Your task to perform on an android device: turn on bluetooth scan Image 0: 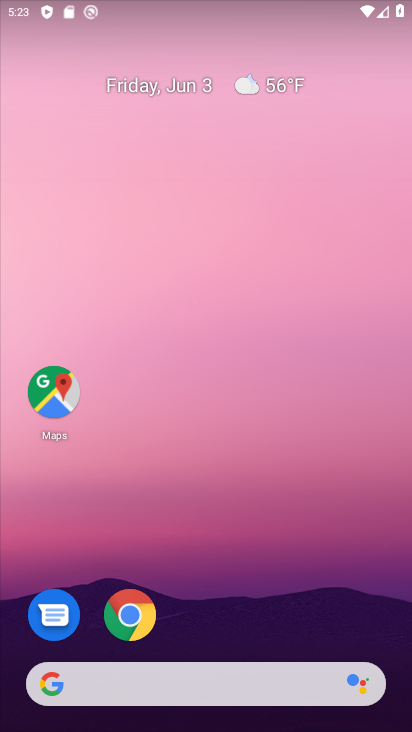
Step 0: drag from (238, 574) to (151, 20)
Your task to perform on an android device: turn on bluetooth scan Image 1: 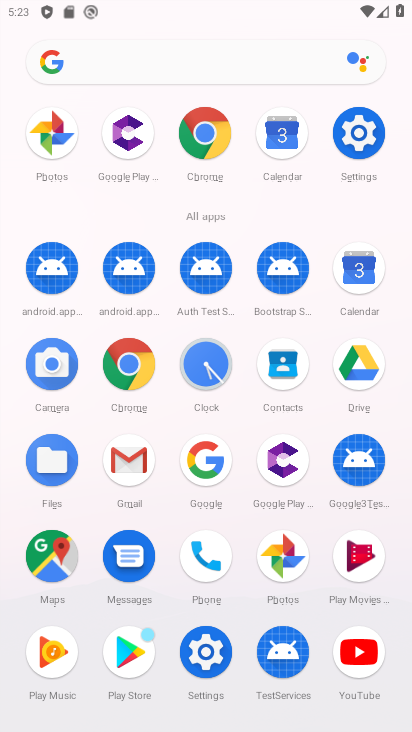
Step 1: click (357, 133)
Your task to perform on an android device: turn on bluetooth scan Image 2: 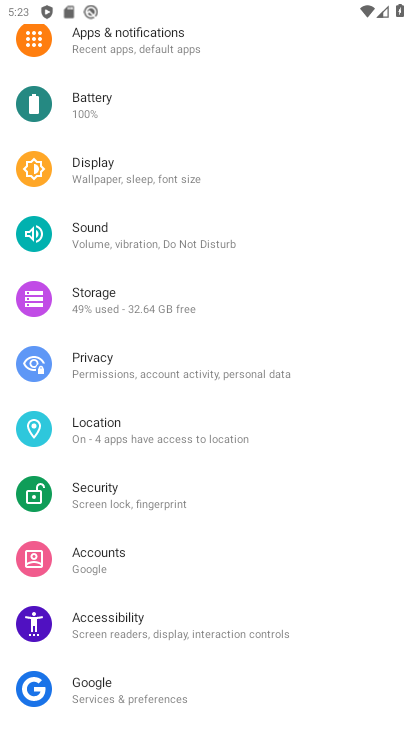
Step 2: click (154, 432)
Your task to perform on an android device: turn on bluetooth scan Image 3: 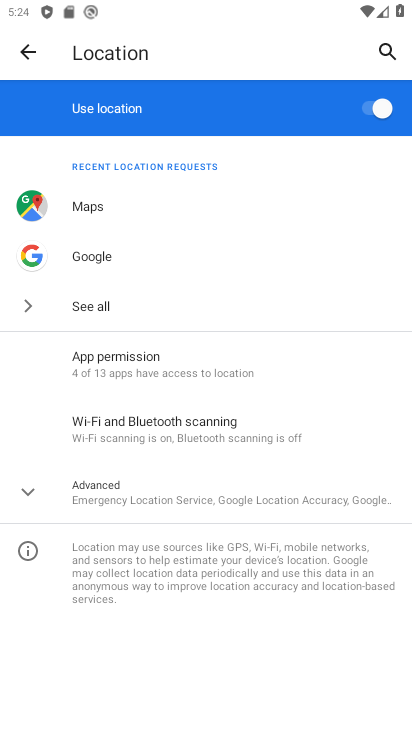
Step 3: click (137, 425)
Your task to perform on an android device: turn on bluetooth scan Image 4: 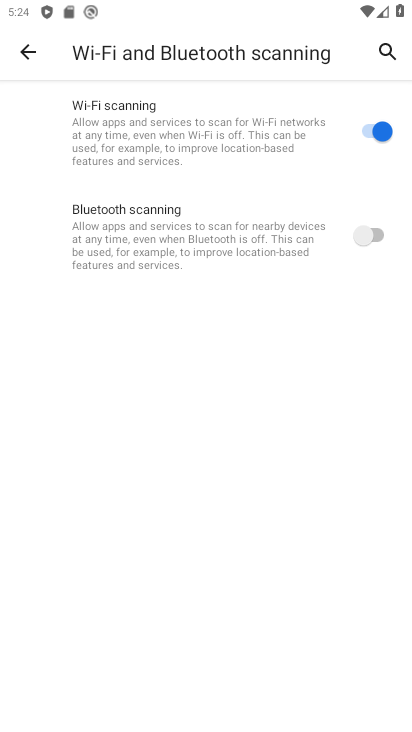
Step 4: click (364, 230)
Your task to perform on an android device: turn on bluetooth scan Image 5: 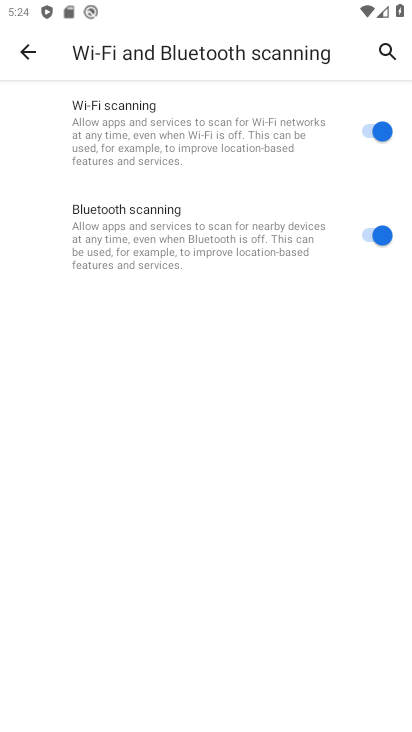
Step 5: task complete